Your task to perform on an android device: Go to internet settings Image 0: 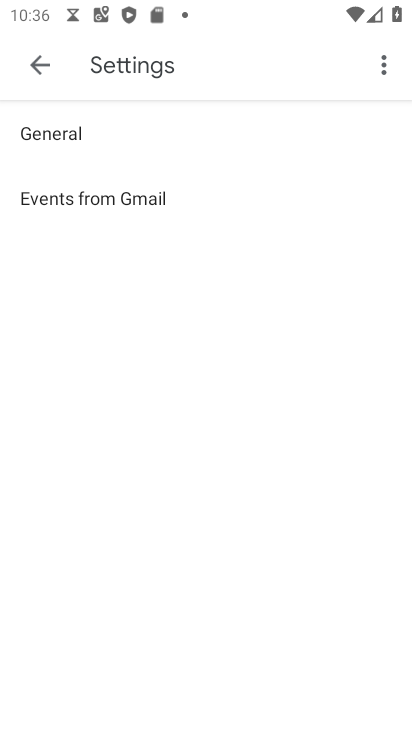
Step 0: press home button
Your task to perform on an android device: Go to internet settings Image 1: 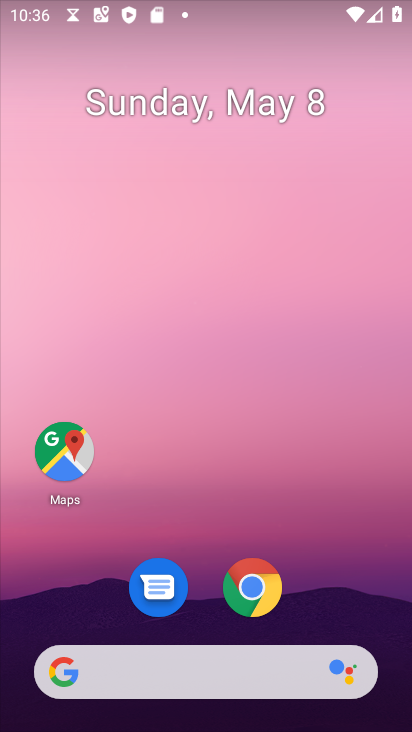
Step 1: drag from (307, 565) to (82, 120)
Your task to perform on an android device: Go to internet settings Image 2: 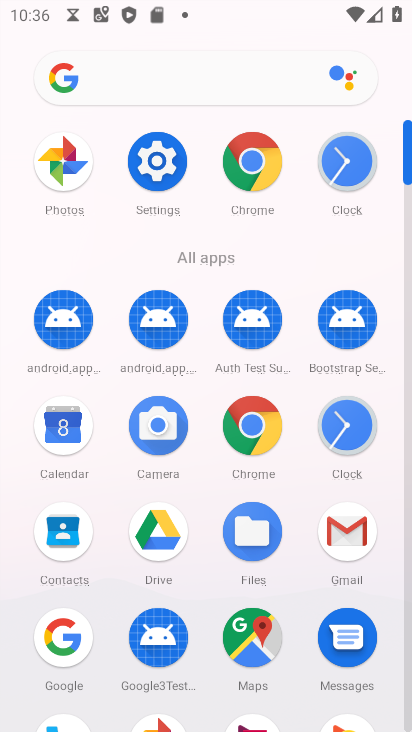
Step 2: click (160, 153)
Your task to perform on an android device: Go to internet settings Image 3: 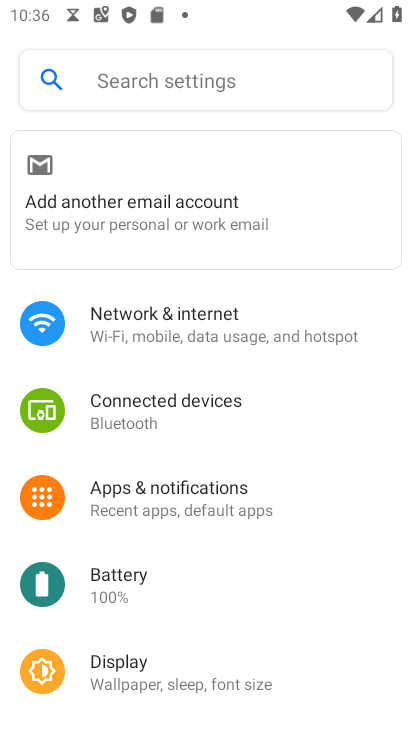
Step 3: click (164, 326)
Your task to perform on an android device: Go to internet settings Image 4: 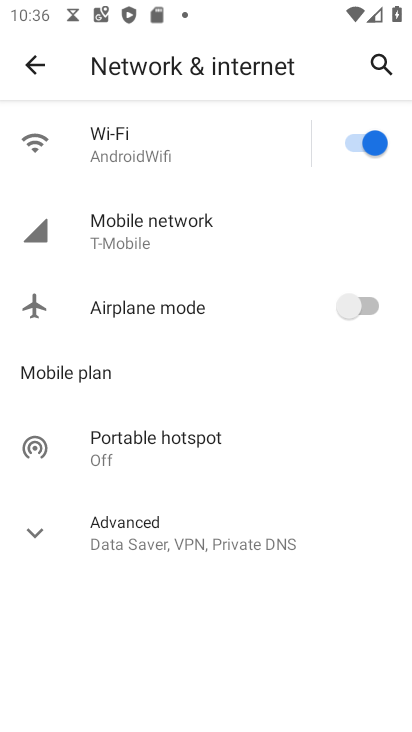
Step 4: task complete